Your task to perform on an android device: open sync settings in chrome Image 0: 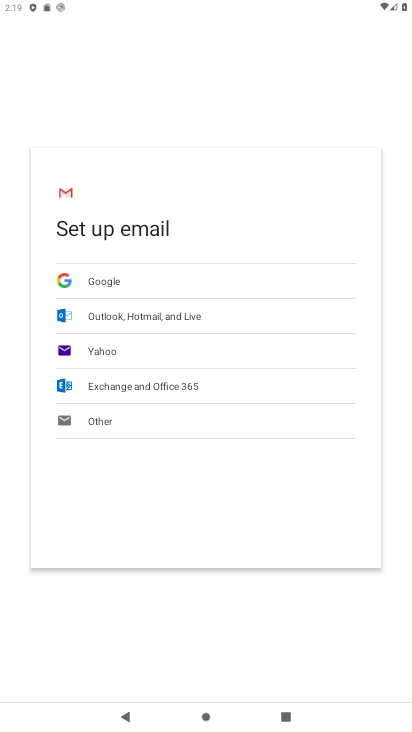
Step 0: press home button
Your task to perform on an android device: open sync settings in chrome Image 1: 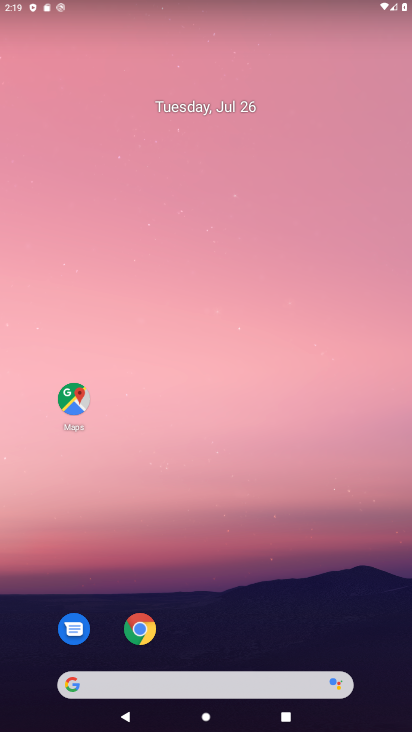
Step 1: click (138, 637)
Your task to perform on an android device: open sync settings in chrome Image 2: 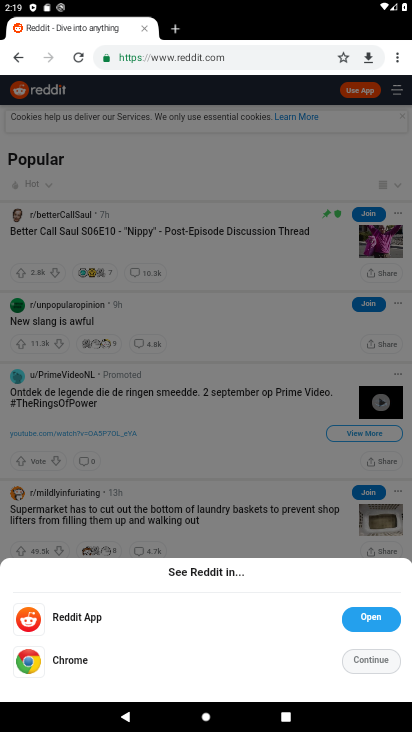
Step 2: click (393, 64)
Your task to perform on an android device: open sync settings in chrome Image 3: 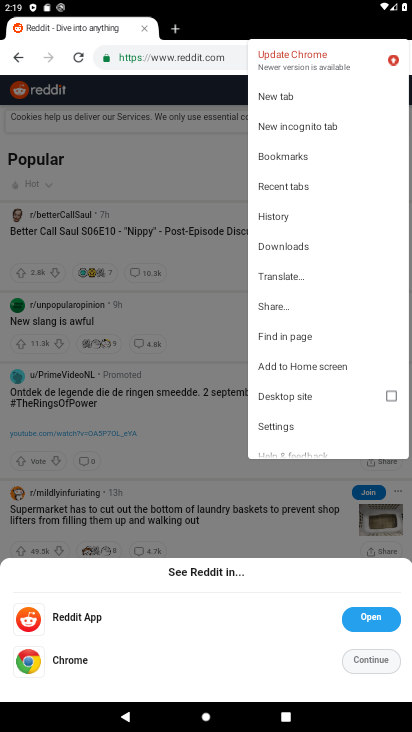
Step 3: click (299, 425)
Your task to perform on an android device: open sync settings in chrome Image 4: 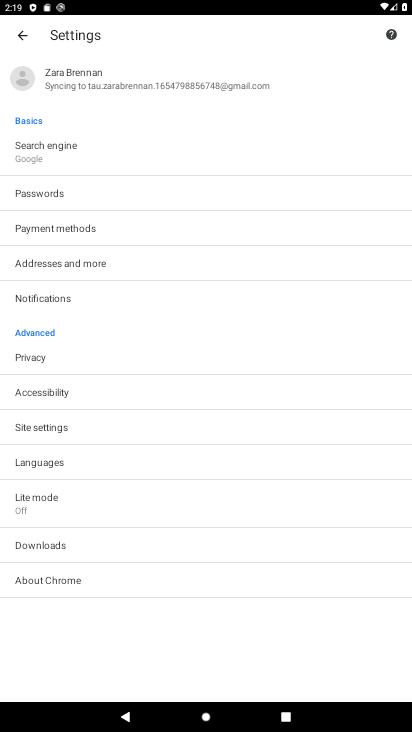
Step 4: click (116, 86)
Your task to perform on an android device: open sync settings in chrome Image 5: 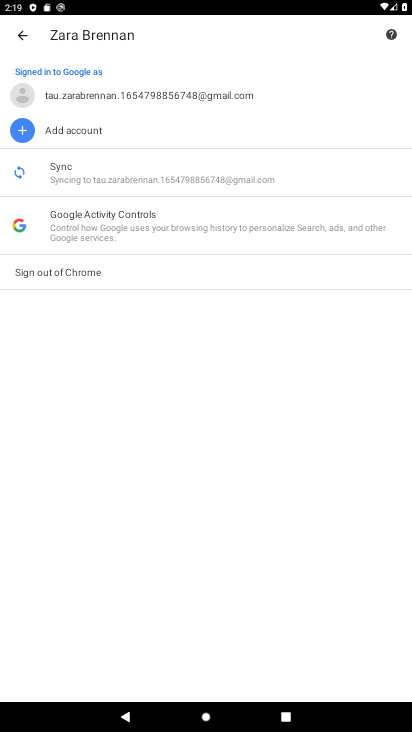
Step 5: click (69, 165)
Your task to perform on an android device: open sync settings in chrome Image 6: 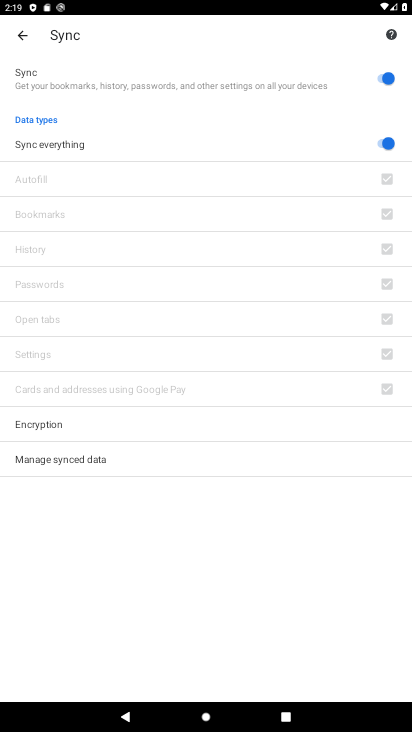
Step 6: task complete